Your task to perform on an android device: What's a goodrestaurant in Austin? Image 0: 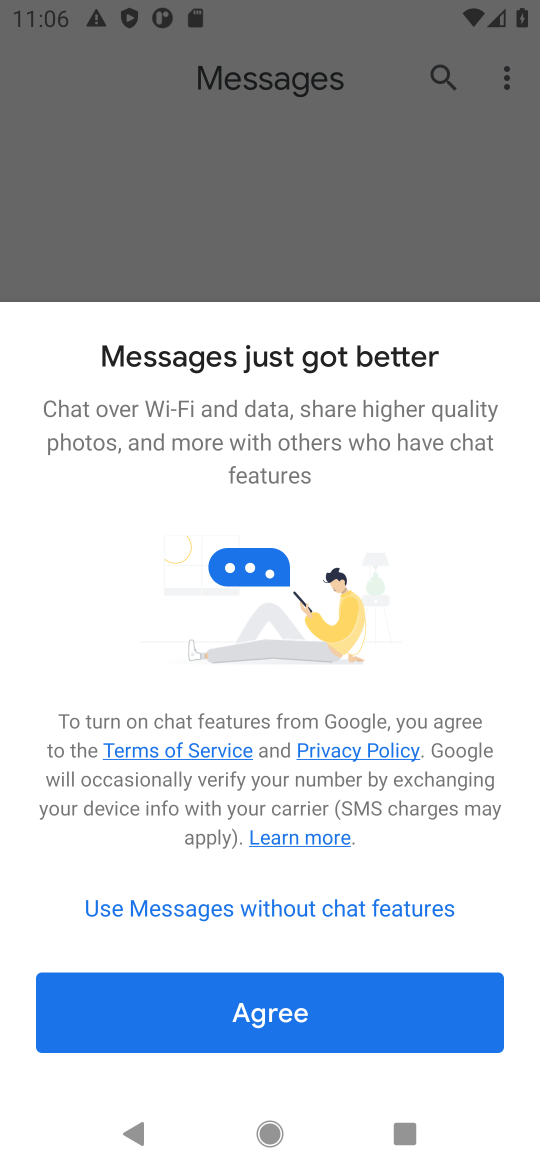
Step 0: press home button
Your task to perform on an android device: What's a goodrestaurant in Austin? Image 1: 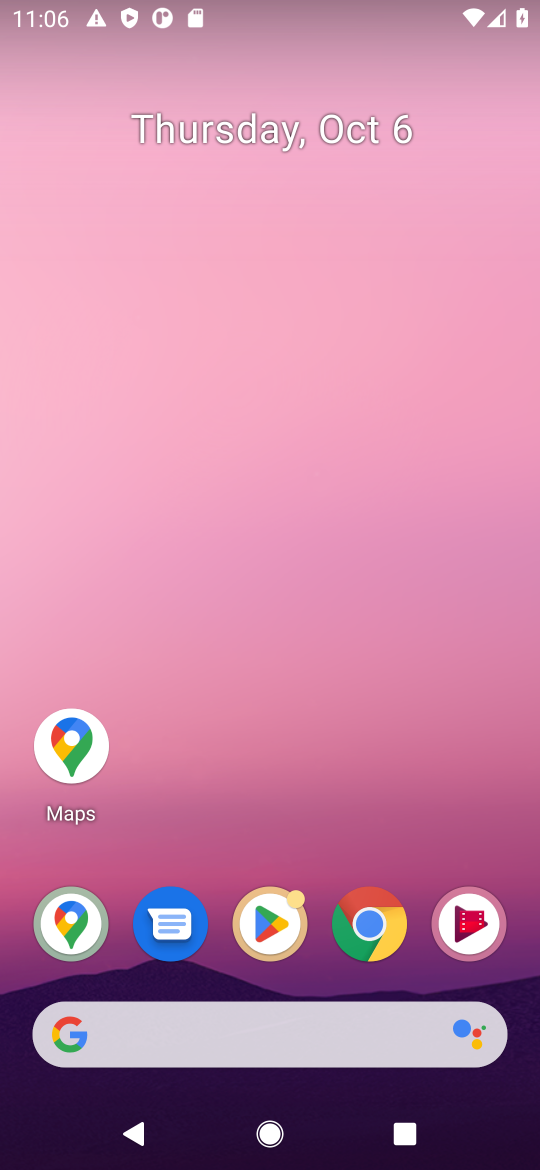
Step 1: click (361, 918)
Your task to perform on an android device: What's a goodrestaurant in Austin? Image 2: 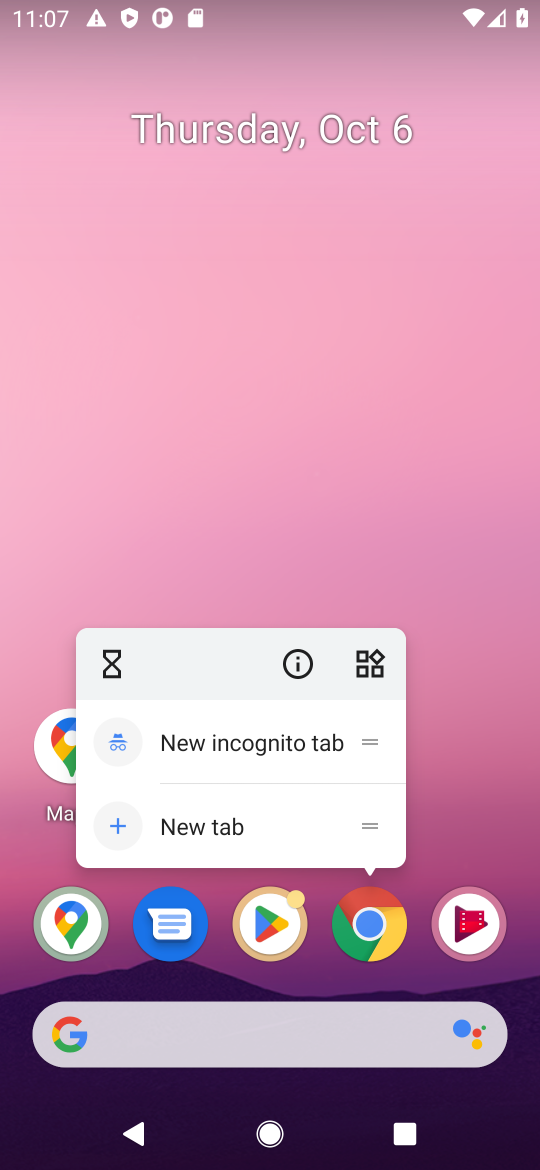
Step 2: click (367, 925)
Your task to perform on an android device: What's a goodrestaurant in Austin? Image 3: 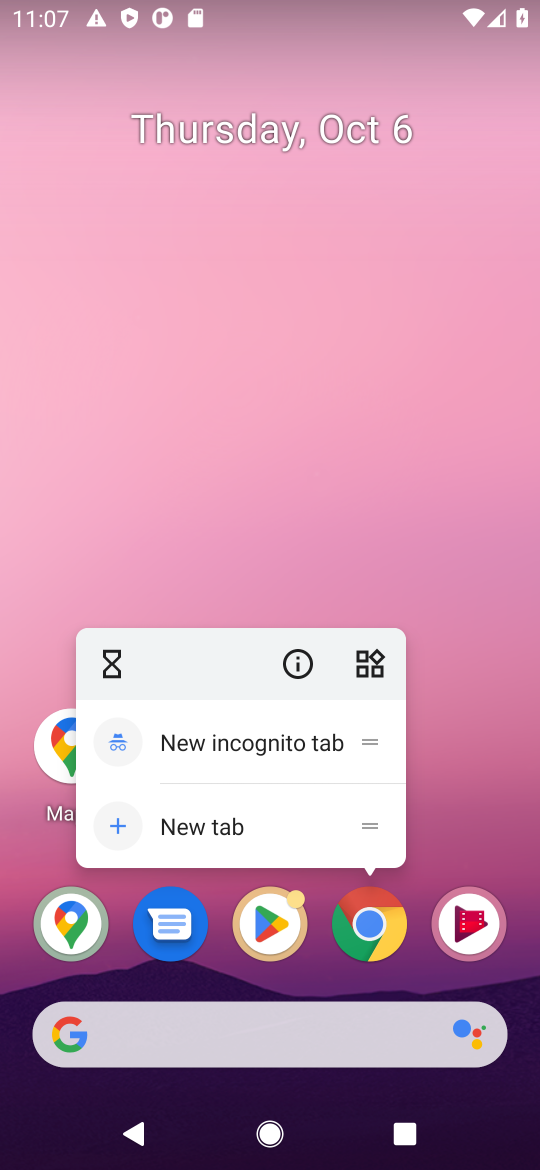
Step 3: click (367, 925)
Your task to perform on an android device: What's a goodrestaurant in Austin? Image 4: 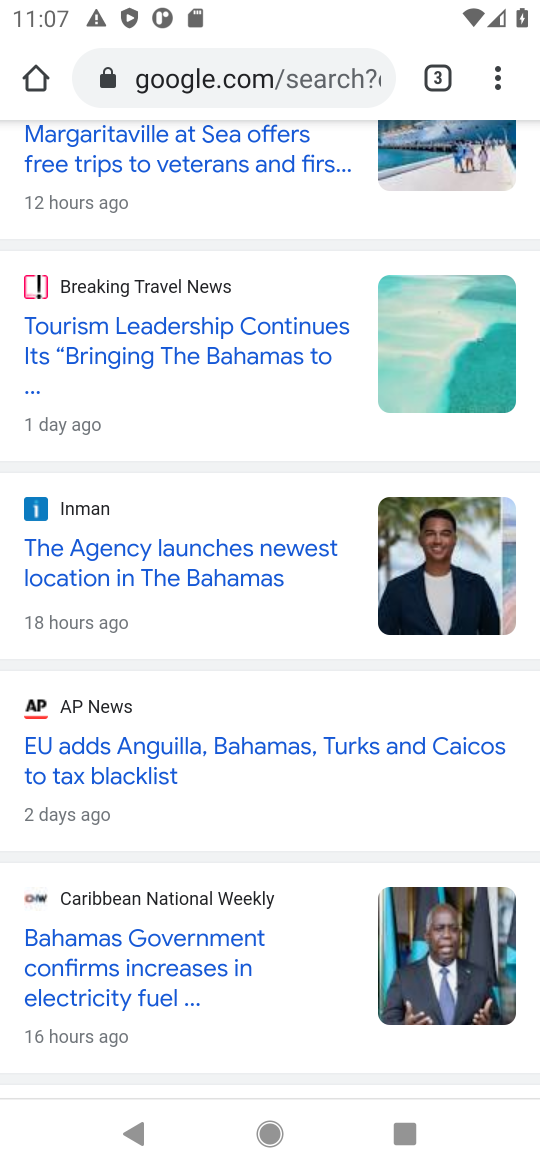
Step 4: click (337, 81)
Your task to perform on an android device: What's a goodrestaurant in Austin? Image 5: 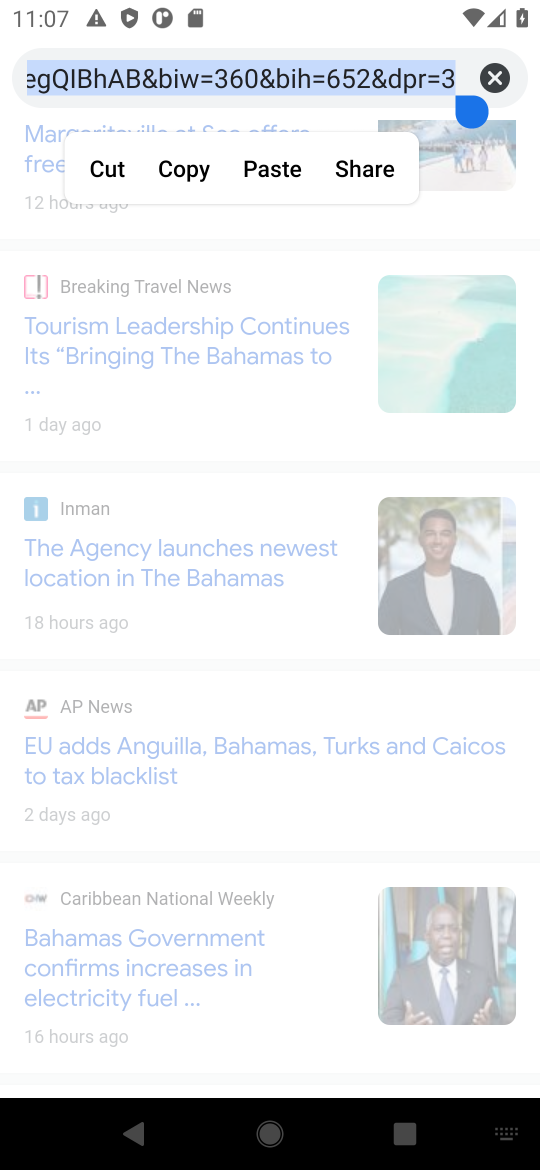
Step 5: click (499, 77)
Your task to perform on an android device: What's a goodrestaurant in Austin? Image 6: 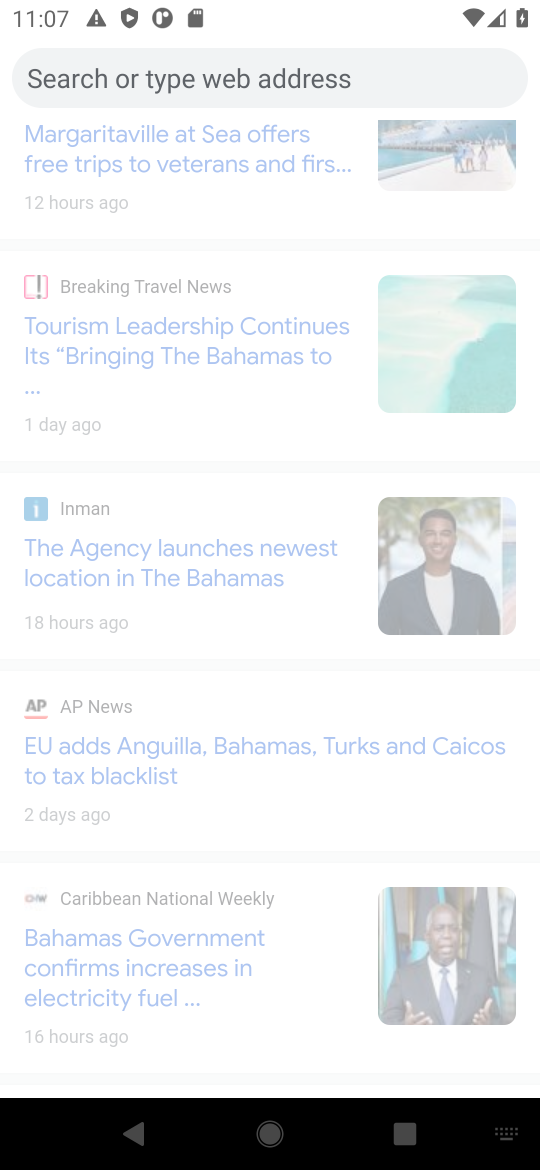
Step 6: type "good restaurant in Austin"
Your task to perform on an android device: What's a goodrestaurant in Austin? Image 7: 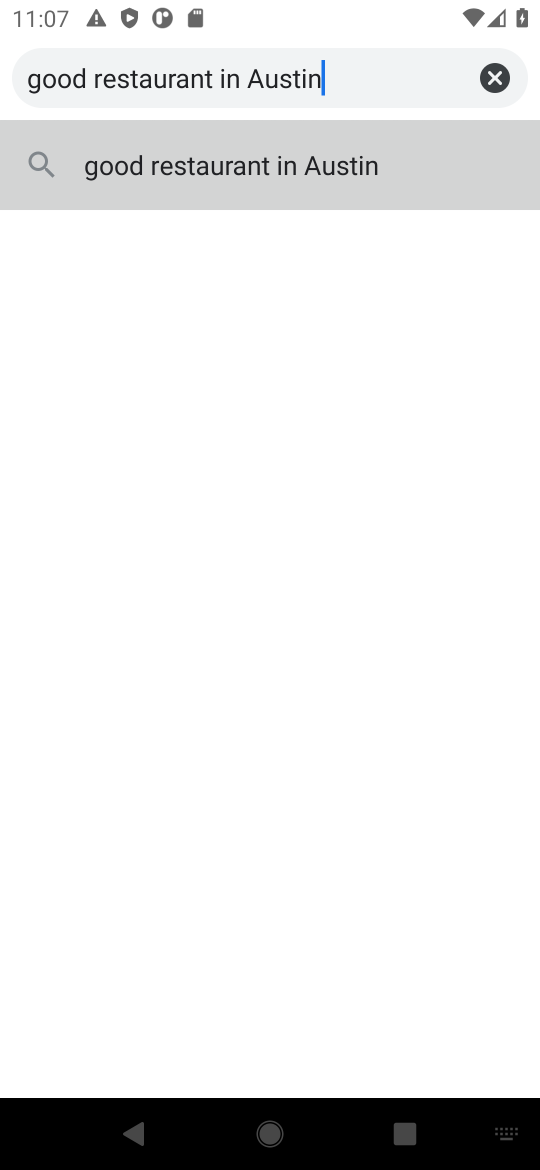
Step 7: click (259, 149)
Your task to perform on an android device: What's a goodrestaurant in Austin? Image 8: 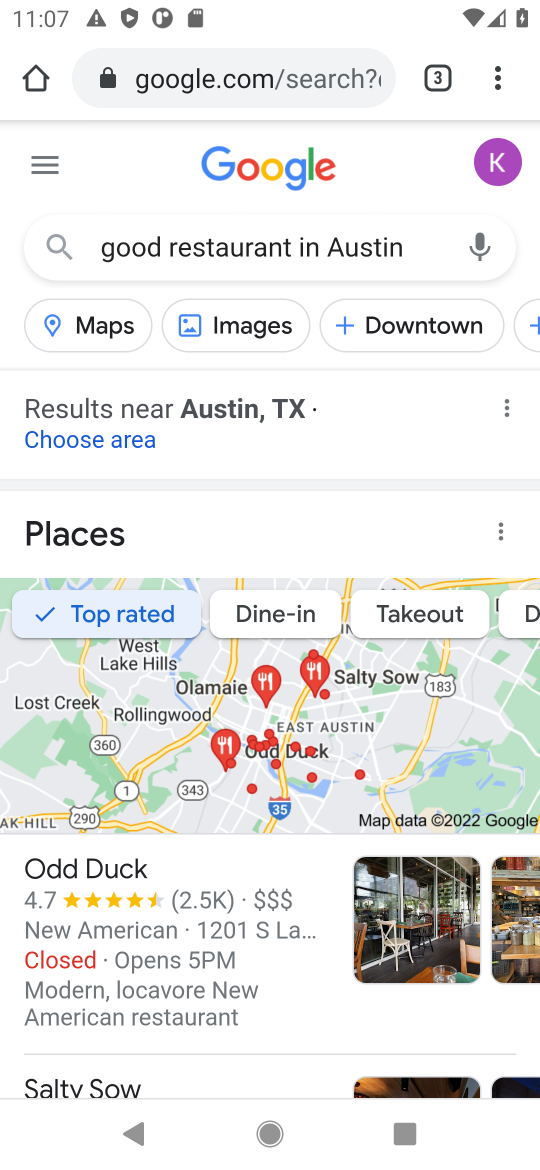
Step 8: drag from (180, 1016) to (436, 450)
Your task to perform on an android device: What's a goodrestaurant in Austin? Image 9: 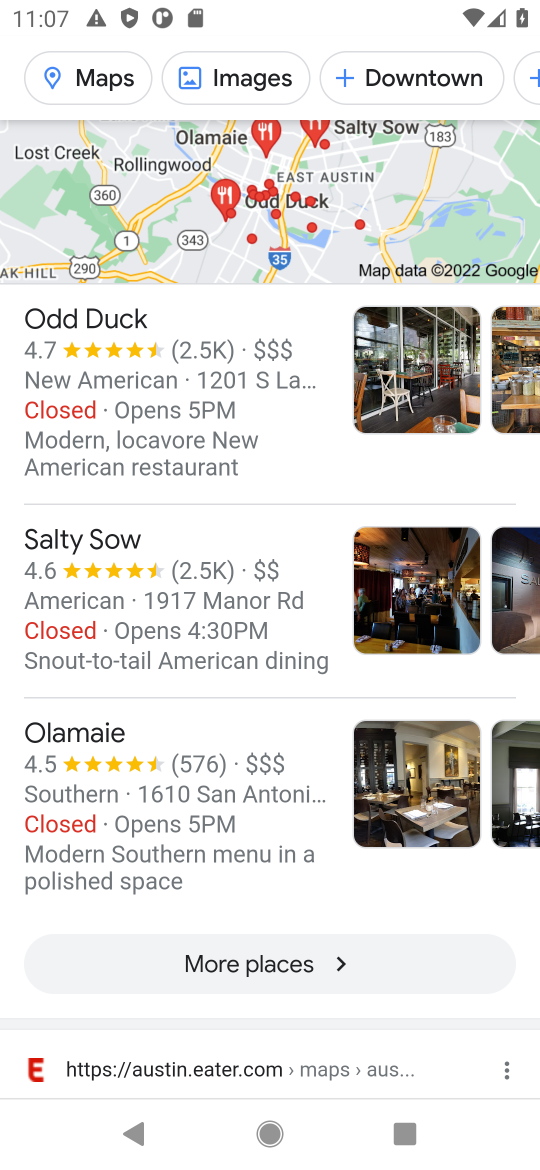
Step 9: click (287, 957)
Your task to perform on an android device: What's a goodrestaurant in Austin? Image 10: 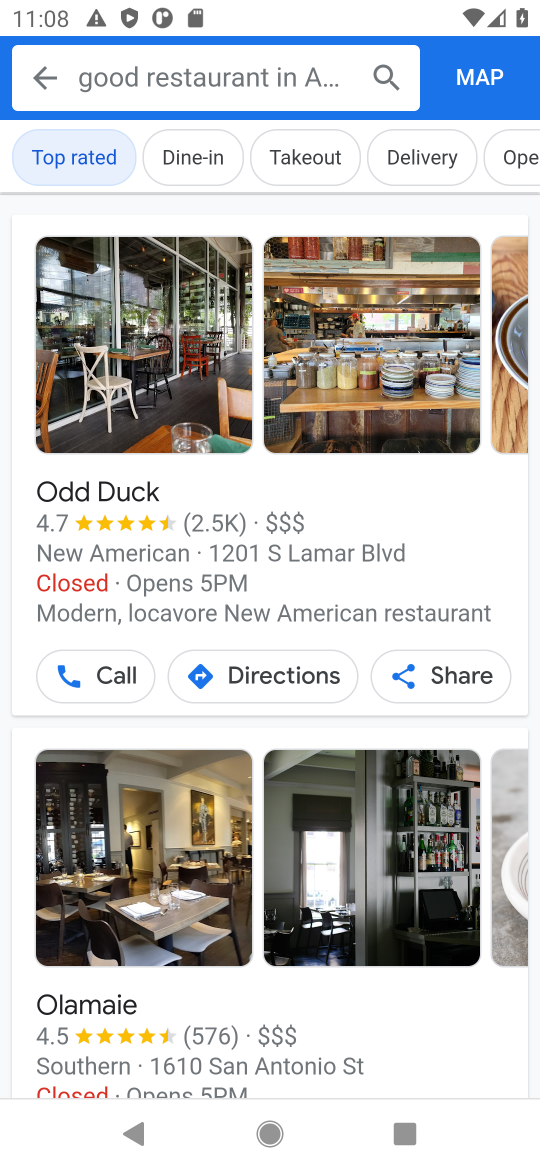
Step 10: task complete